Your task to perform on an android device: set an alarm Image 0: 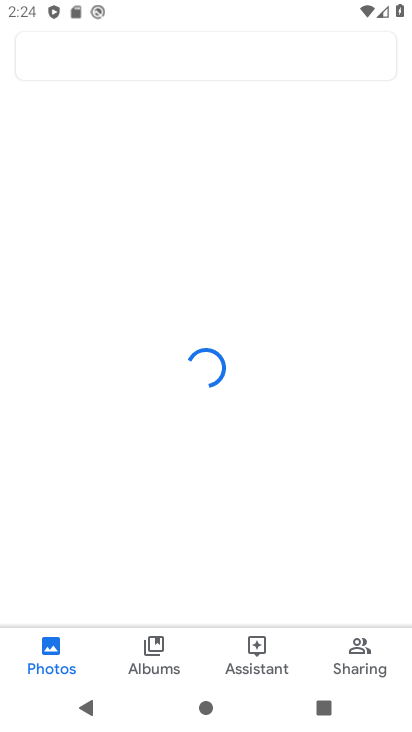
Step 0: press home button
Your task to perform on an android device: set an alarm Image 1: 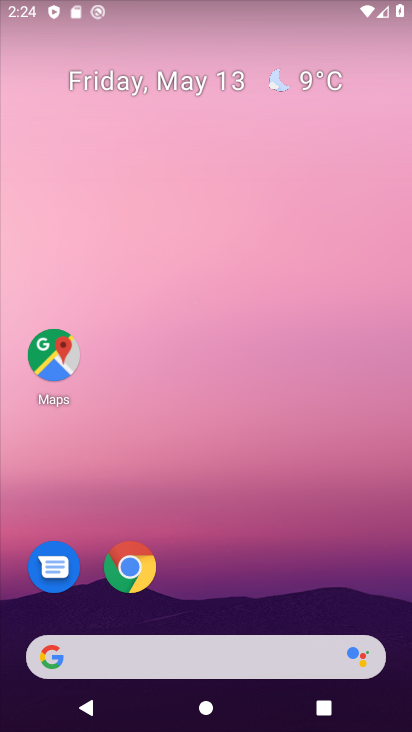
Step 1: drag from (220, 589) to (157, 364)
Your task to perform on an android device: set an alarm Image 2: 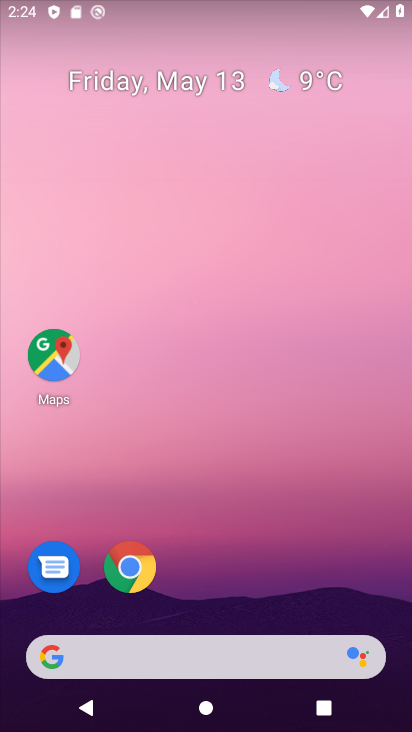
Step 2: drag from (225, 613) to (237, 16)
Your task to perform on an android device: set an alarm Image 3: 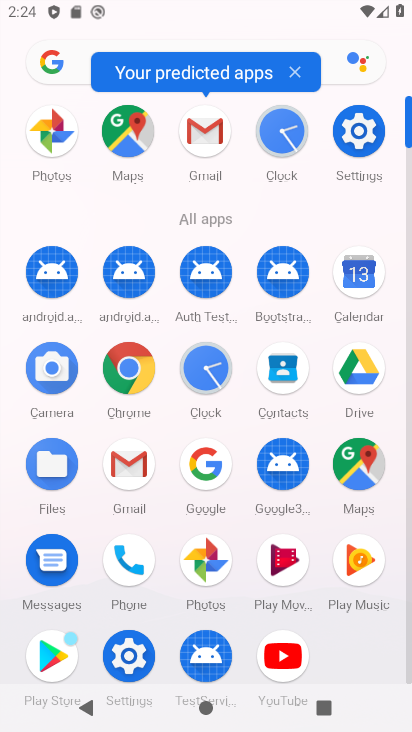
Step 3: click (203, 361)
Your task to perform on an android device: set an alarm Image 4: 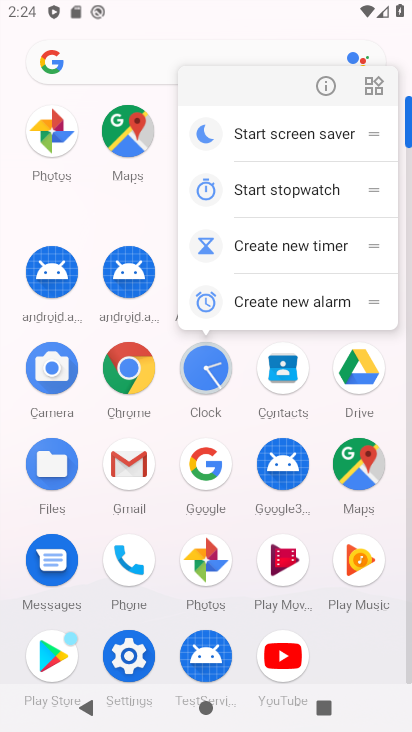
Step 4: click (205, 364)
Your task to perform on an android device: set an alarm Image 5: 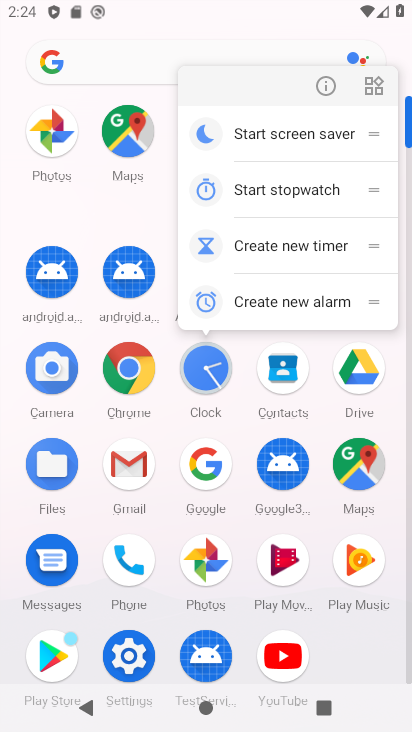
Step 5: click (206, 364)
Your task to perform on an android device: set an alarm Image 6: 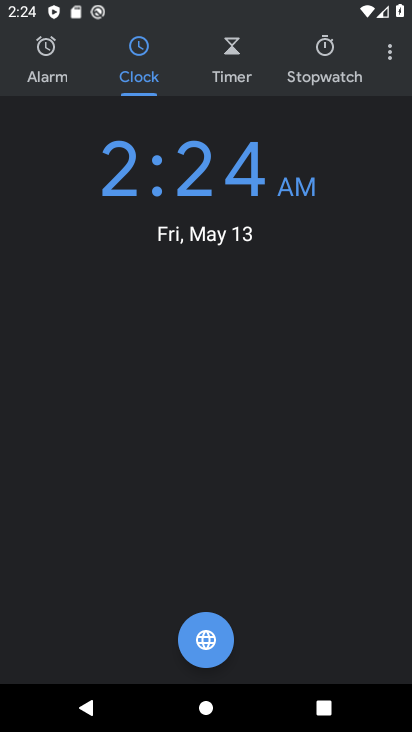
Step 6: click (73, 74)
Your task to perform on an android device: set an alarm Image 7: 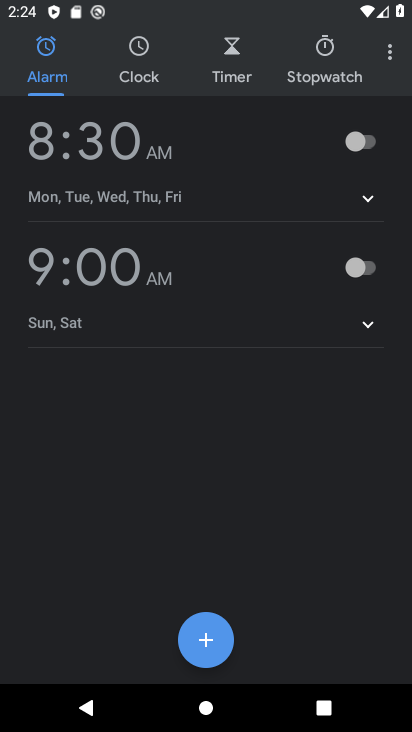
Step 7: click (359, 191)
Your task to perform on an android device: set an alarm Image 8: 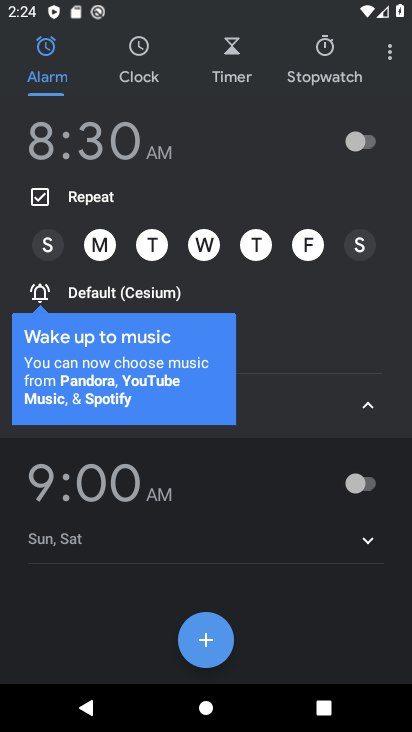
Step 8: click (154, 250)
Your task to perform on an android device: set an alarm Image 9: 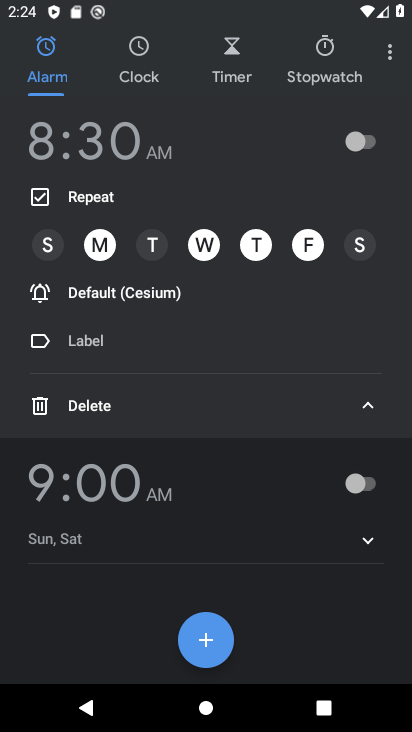
Step 9: click (375, 243)
Your task to perform on an android device: set an alarm Image 10: 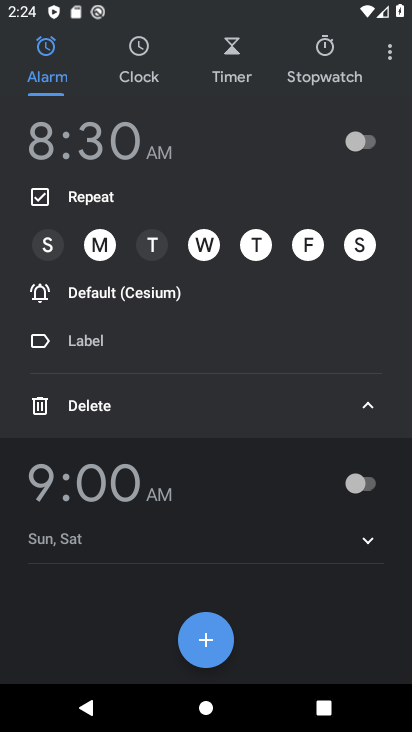
Step 10: click (268, 247)
Your task to perform on an android device: set an alarm Image 11: 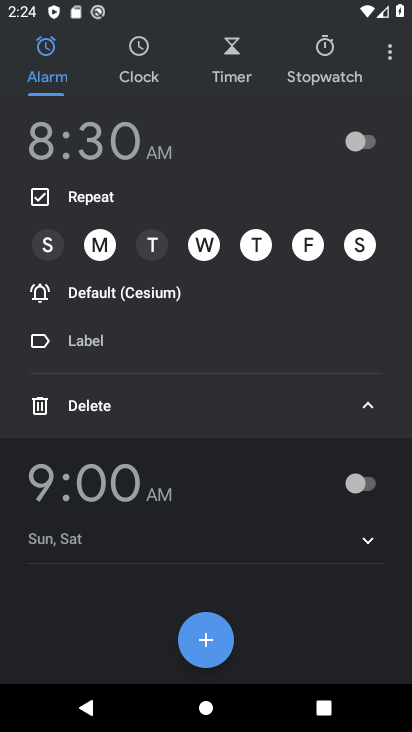
Step 11: click (202, 250)
Your task to perform on an android device: set an alarm Image 12: 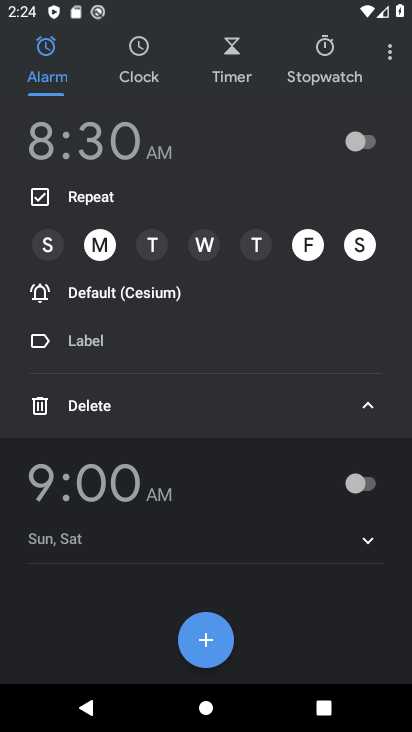
Step 12: click (87, 141)
Your task to perform on an android device: set an alarm Image 13: 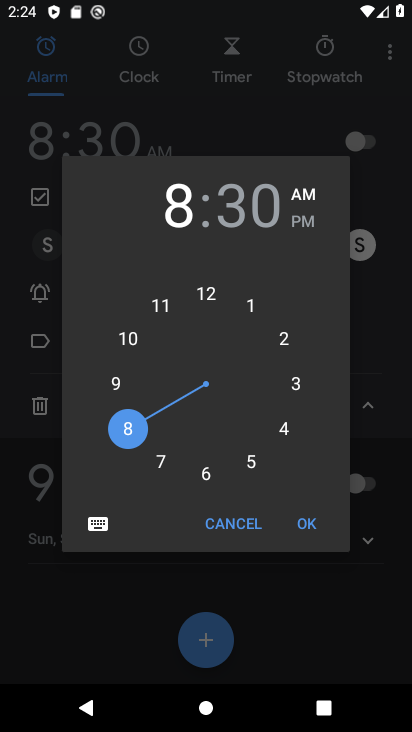
Step 13: click (157, 458)
Your task to perform on an android device: set an alarm Image 14: 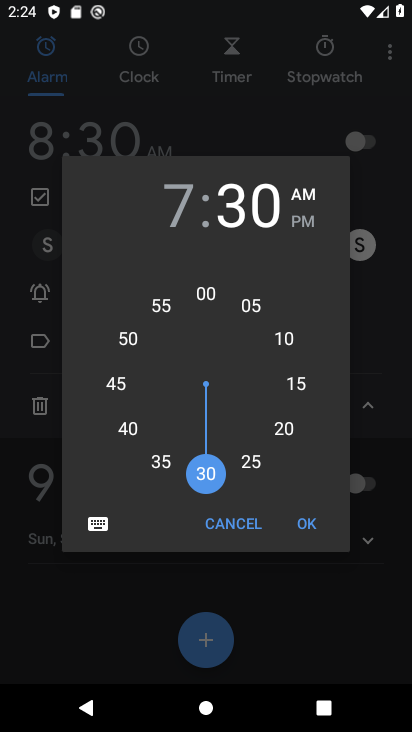
Step 14: click (300, 375)
Your task to perform on an android device: set an alarm Image 15: 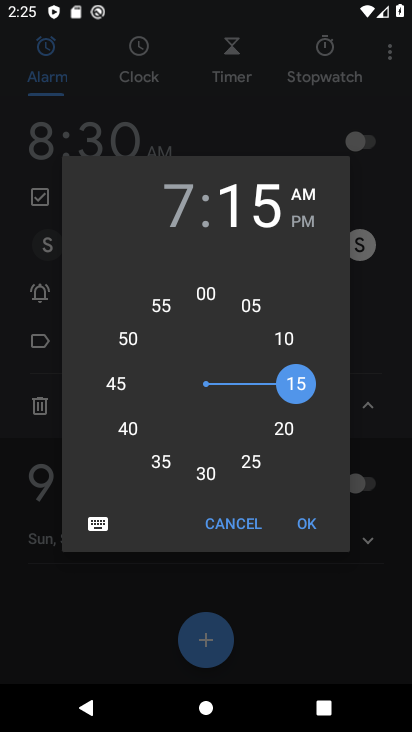
Step 15: click (311, 525)
Your task to perform on an android device: set an alarm Image 16: 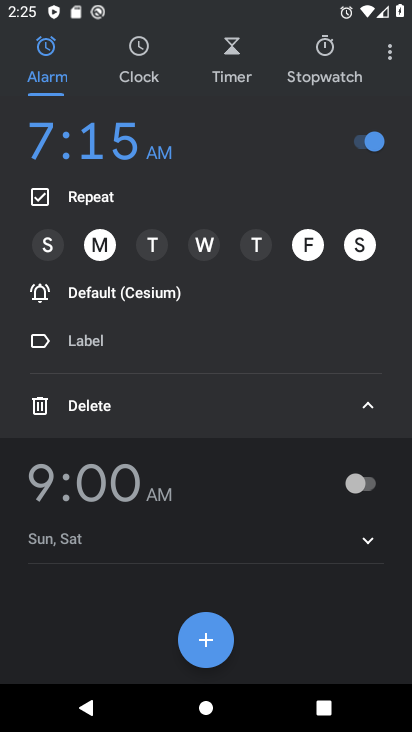
Step 16: task complete